Your task to perform on an android device: Is it going to rain today? Image 0: 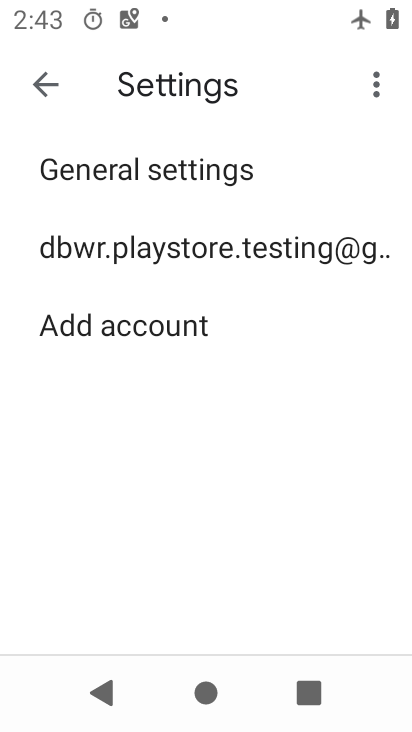
Step 0: press home button
Your task to perform on an android device: Is it going to rain today? Image 1: 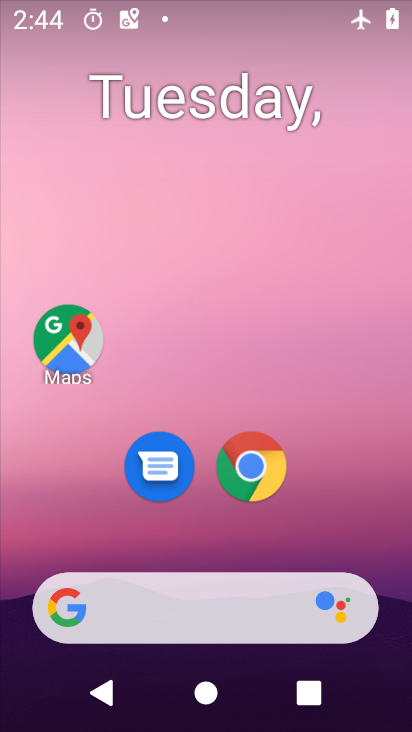
Step 1: click (270, 602)
Your task to perform on an android device: Is it going to rain today? Image 2: 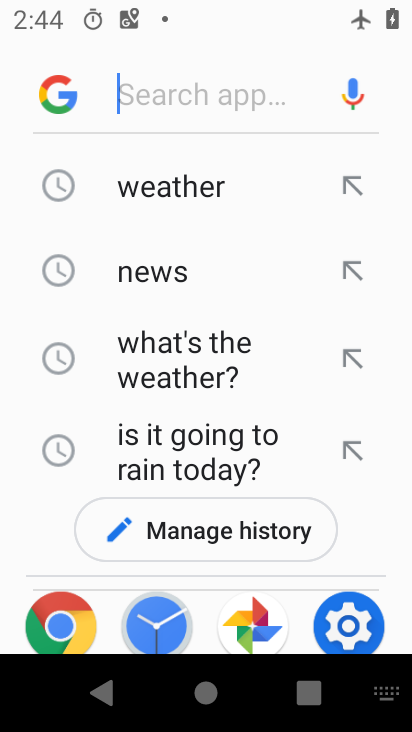
Step 2: click (202, 200)
Your task to perform on an android device: Is it going to rain today? Image 3: 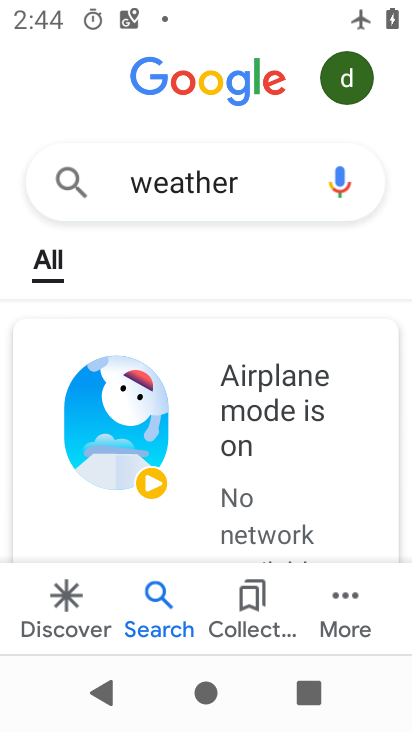
Step 3: press back button
Your task to perform on an android device: Is it going to rain today? Image 4: 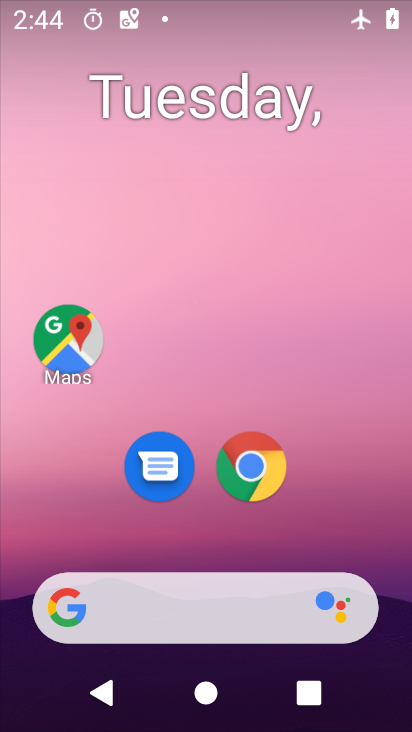
Step 4: drag from (358, 506) to (346, 160)
Your task to perform on an android device: Is it going to rain today? Image 5: 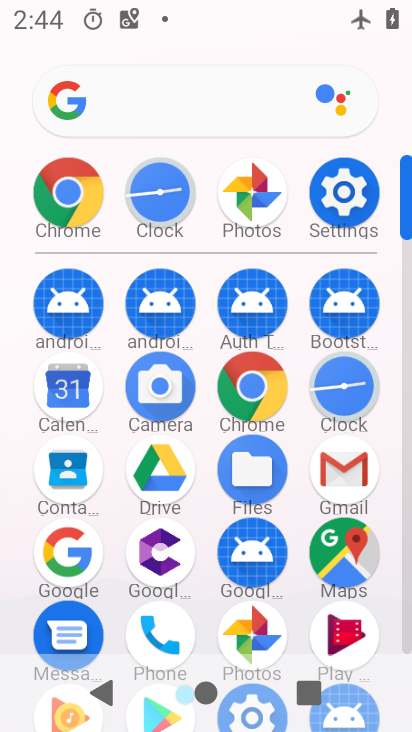
Step 5: click (342, 207)
Your task to perform on an android device: Is it going to rain today? Image 6: 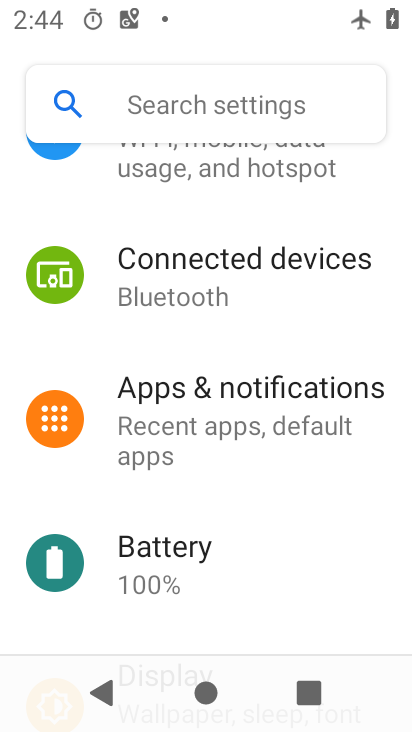
Step 6: drag from (346, 203) to (342, 359)
Your task to perform on an android device: Is it going to rain today? Image 7: 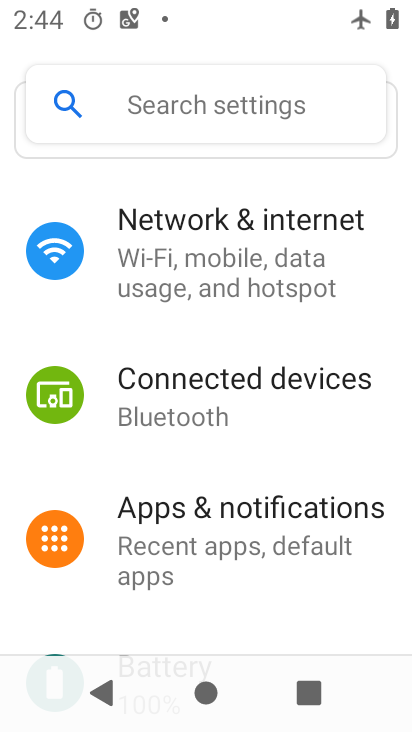
Step 7: click (323, 263)
Your task to perform on an android device: Is it going to rain today? Image 8: 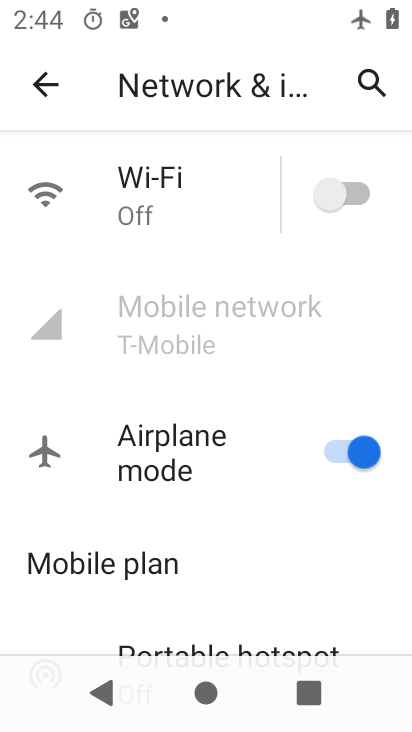
Step 8: click (362, 449)
Your task to perform on an android device: Is it going to rain today? Image 9: 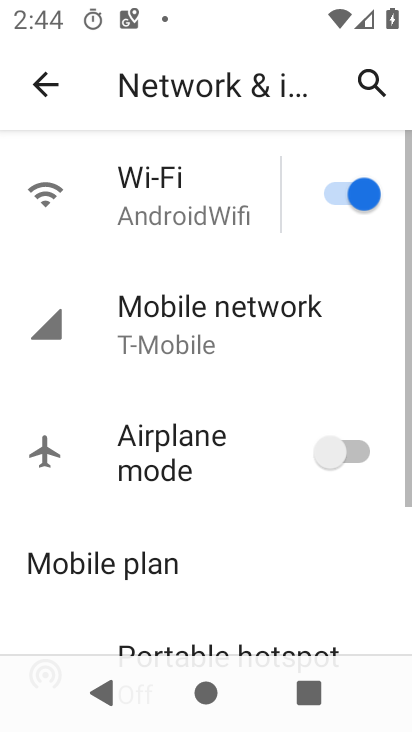
Step 9: task complete